Your task to perform on an android device: turn off location Image 0: 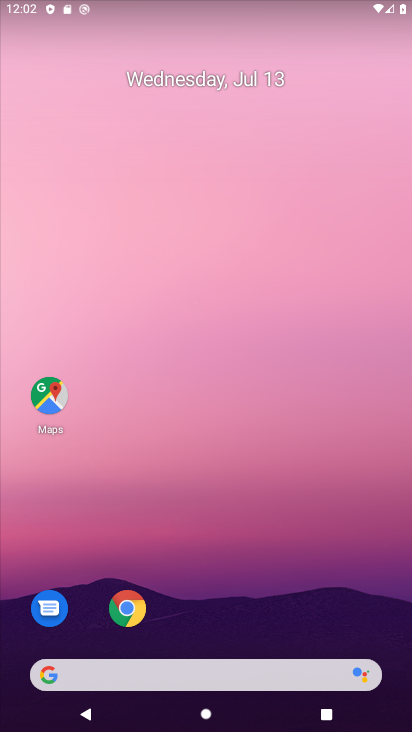
Step 0: drag from (236, 602) to (285, 37)
Your task to perform on an android device: turn off location Image 1: 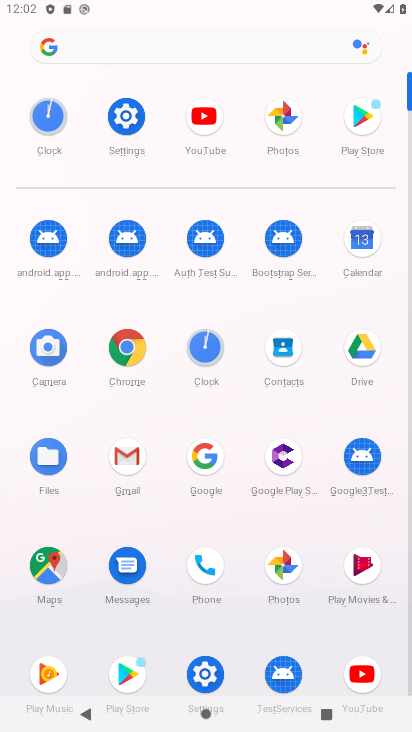
Step 1: click (132, 117)
Your task to perform on an android device: turn off location Image 2: 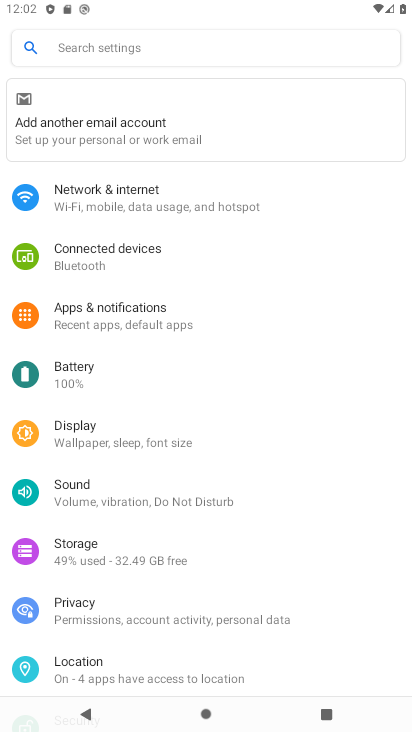
Step 2: click (94, 670)
Your task to perform on an android device: turn off location Image 3: 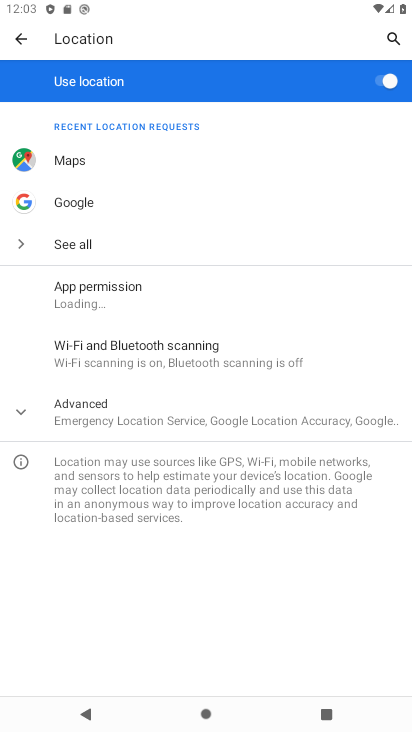
Step 3: click (387, 84)
Your task to perform on an android device: turn off location Image 4: 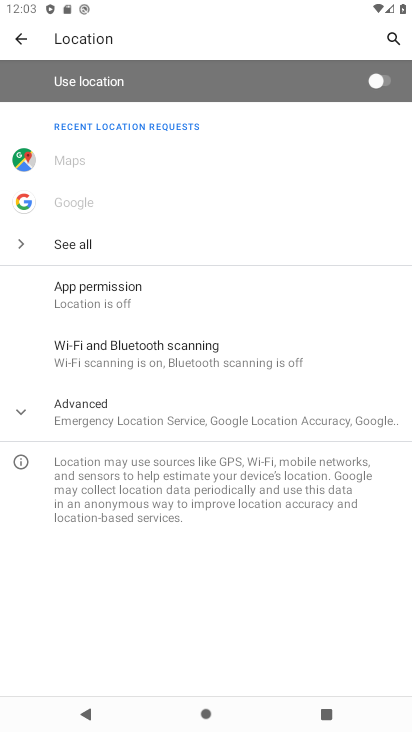
Step 4: task complete